Your task to perform on an android device: Empty the shopping cart on newegg. Search for logitech g903 on newegg, select the first entry, add it to the cart, then select checkout. Image 0: 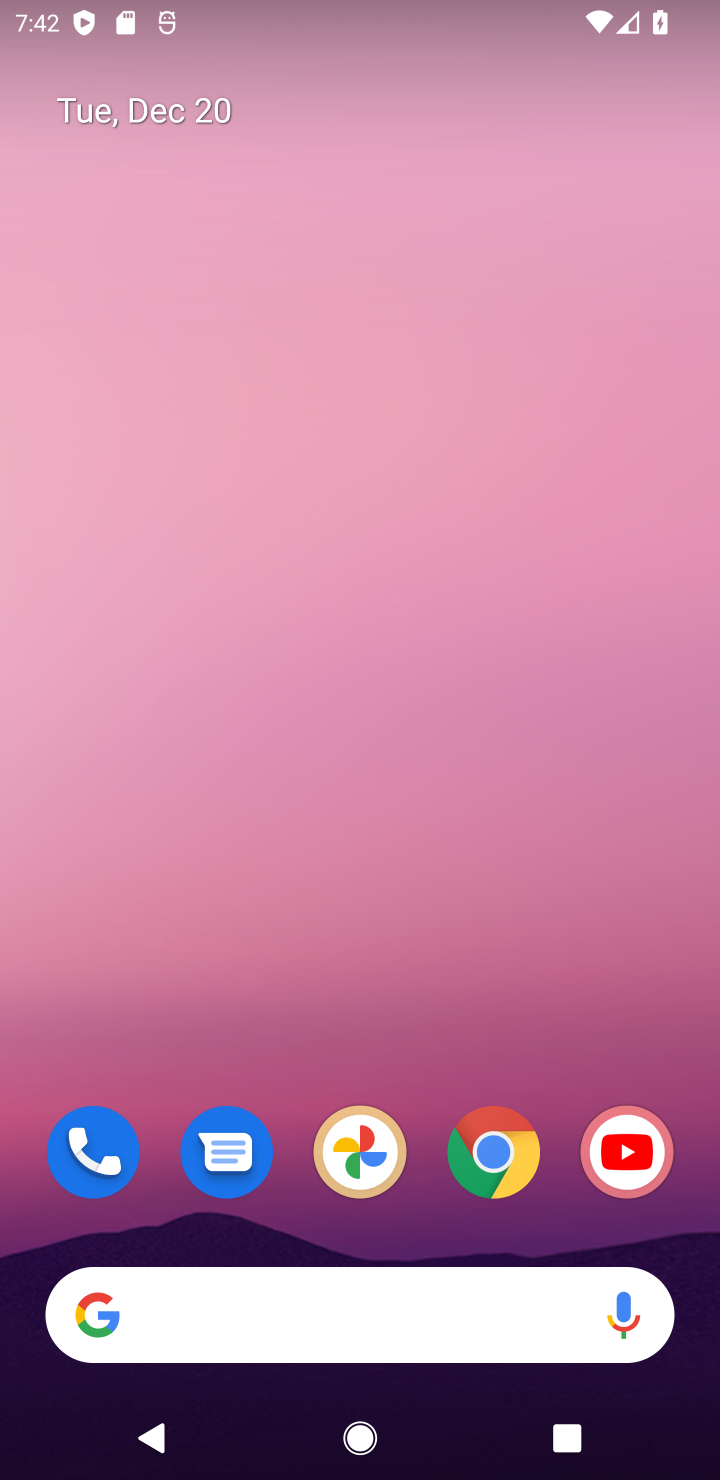
Step 0: task impossible